Your task to perform on an android device: Open Wikipedia Image 0: 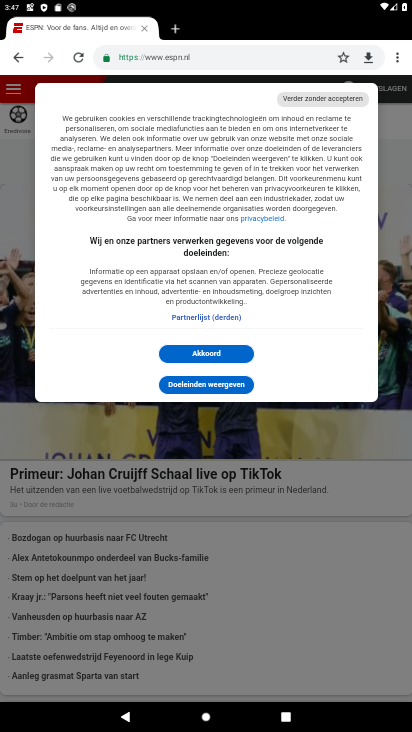
Step 0: press home button
Your task to perform on an android device: Open Wikipedia Image 1: 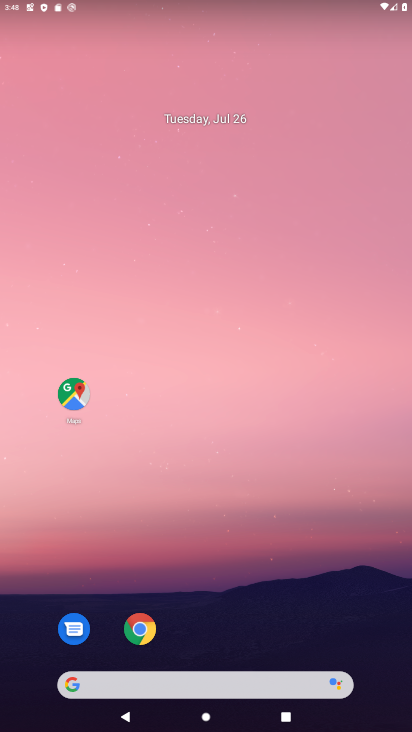
Step 1: click (140, 640)
Your task to perform on an android device: Open Wikipedia Image 2: 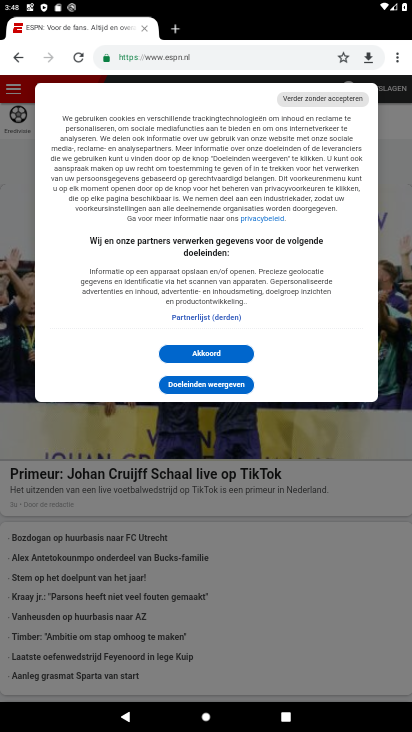
Step 2: click (178, 55)
Your task to perform on an android device: Open Wikipedia Image 3: 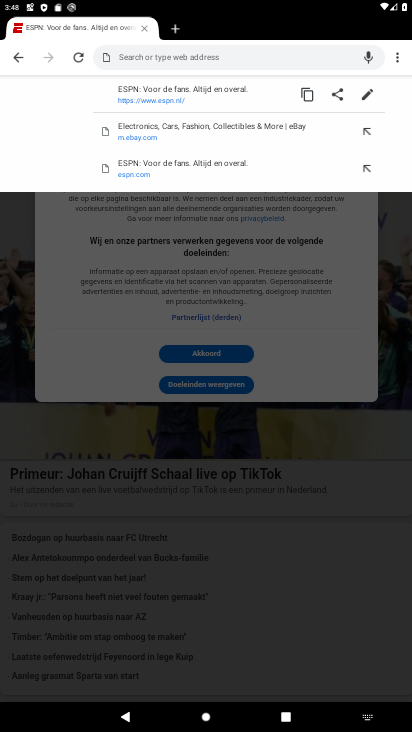
Step 3: type "wiki"
Your task to perform on an android device: Open Wikipedia Image 4: 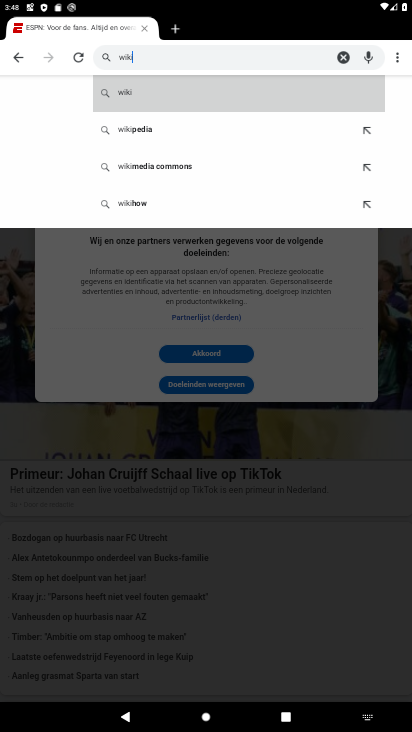
Step 4: click (160, 130)
Your task to perform on an android device: Open Wikipedia Image 5: 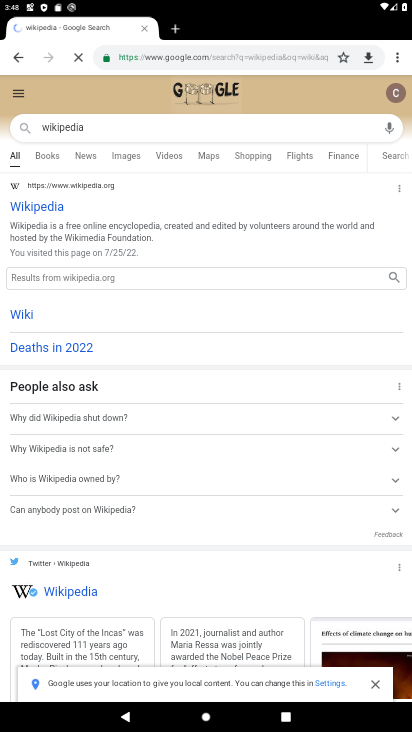
Step 5: click (50, 206)
Your task to perform on an android device: Open Wikipedia Image 6: 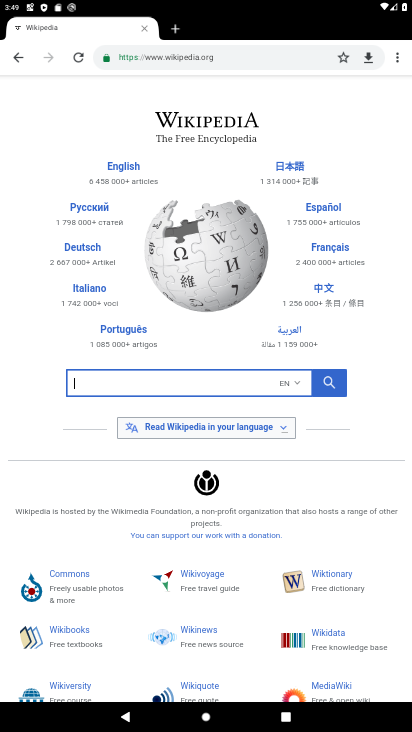
Step 6: task complete